Your task to perform on an android device: turn on javascript in the chrome app Image 0: 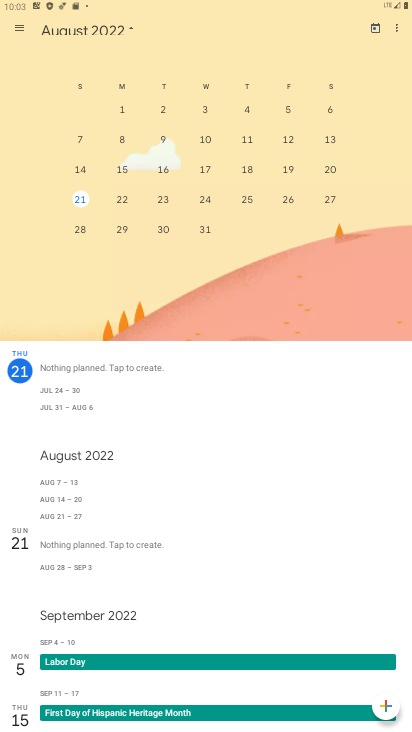
Step 0: press home button
Your task to perform on an android device: turn on javascript in the chrome app Image 1: 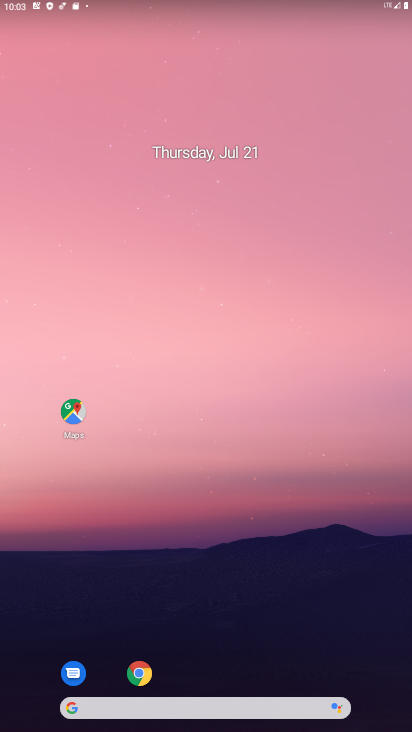
Step 1: click (142, 655)
Your task to perform on an android device: turn on javascript in the chrome app Image 2: 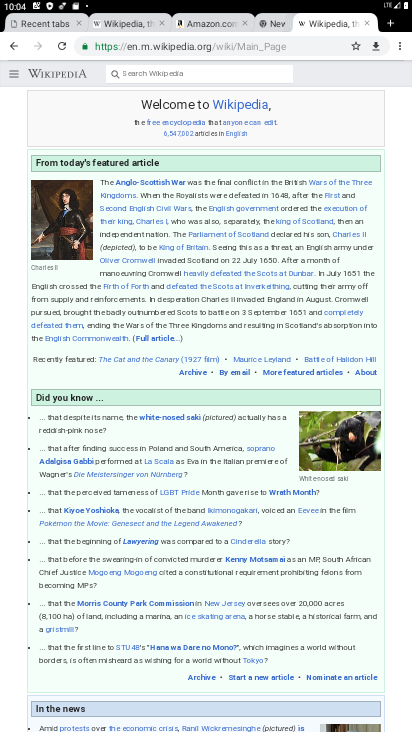
Step 2: click (397, 49)
Your task to perform on an android device: turn on javascript in the chrome app Image 3: 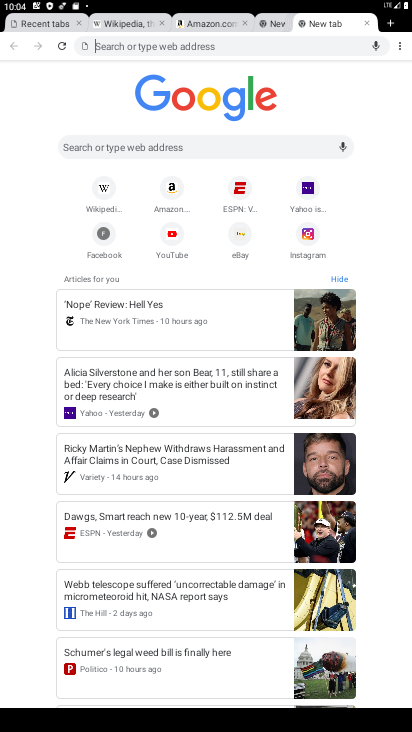
Step 3: click (394, 60)
Your task to perform on an android device: turn on javascript in the chrome app Image 4: 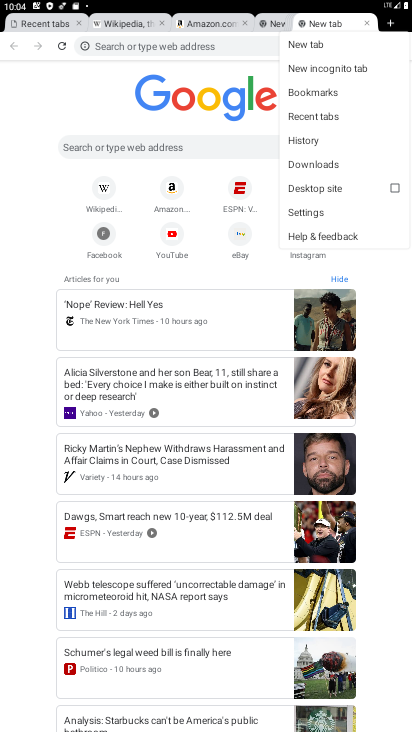
Step 4: click (322, 216)
Your task to perform on an android device: turn on javascript in the chrome app Image 5: 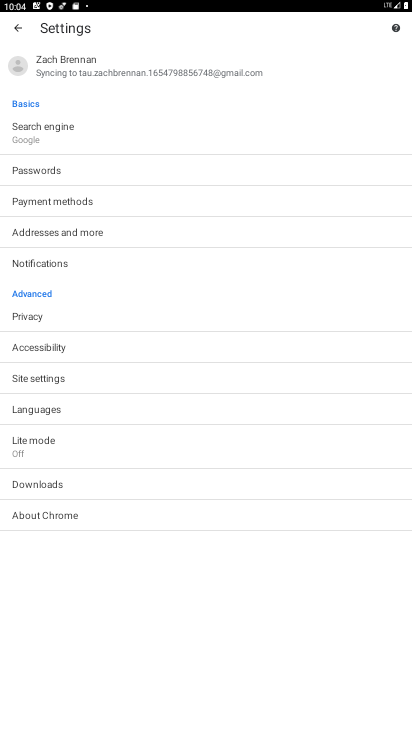
Step 5: click (91, 384)
Your task to perform on an android device: turn on javascript in the chrome app Image 6: 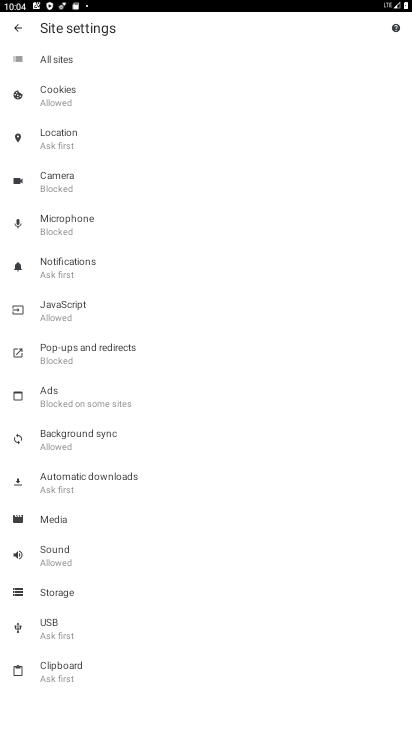
Step 6: click (98, 306)
Your task to perform on an android device: turn on javascript in the chrome app Image 7: 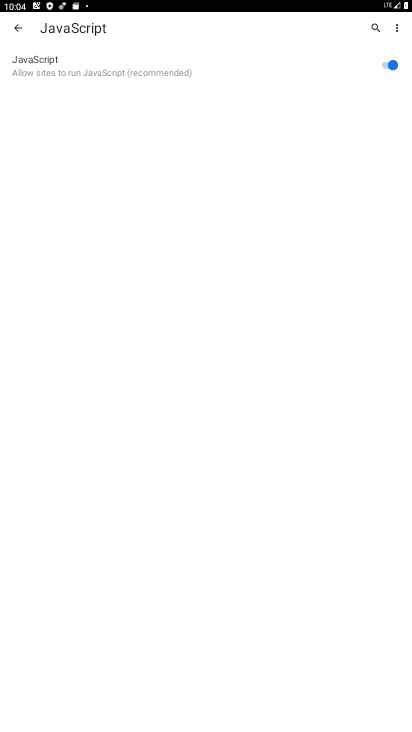
Step 7: task complete